Your task to perform on an android device: Open settings on Google Maps Image 0: 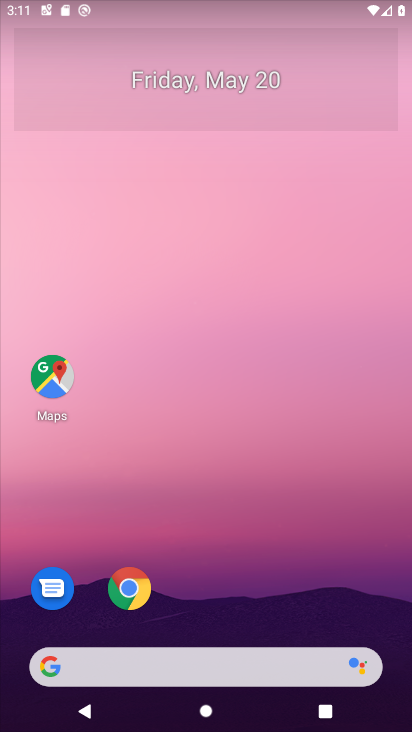
Step 0: click (59, 370)
Your task to perform on an android device: Open settings on Google Maps Image 1: 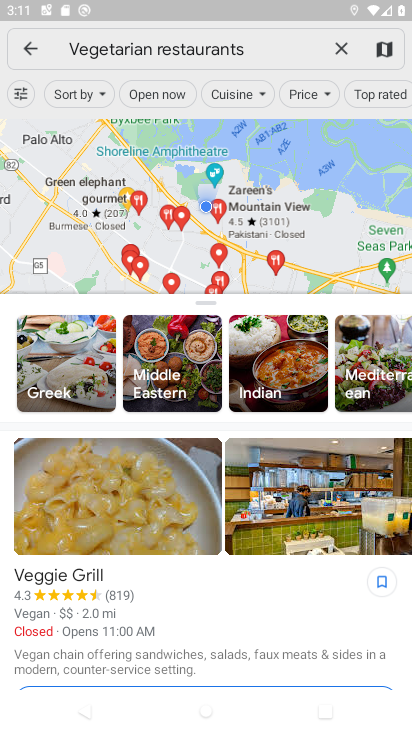
Step 1: click (26, 40)
Your task to perform on an android device: Open settings on Google Maps Image 2: 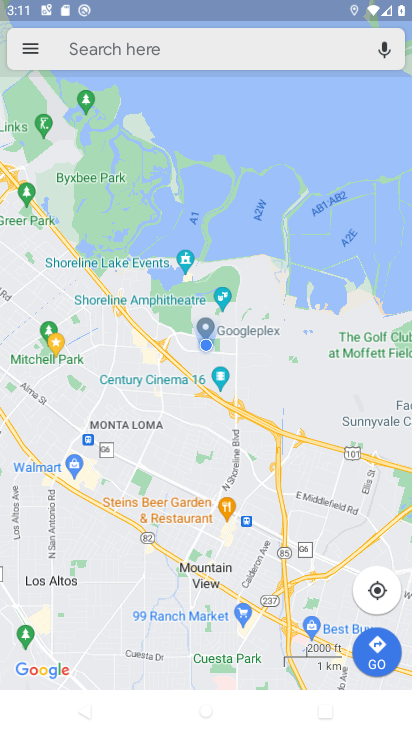
Step 2: click (30, 46)
Your task to perform on an android device: Open settings on Google Maps Image 3: 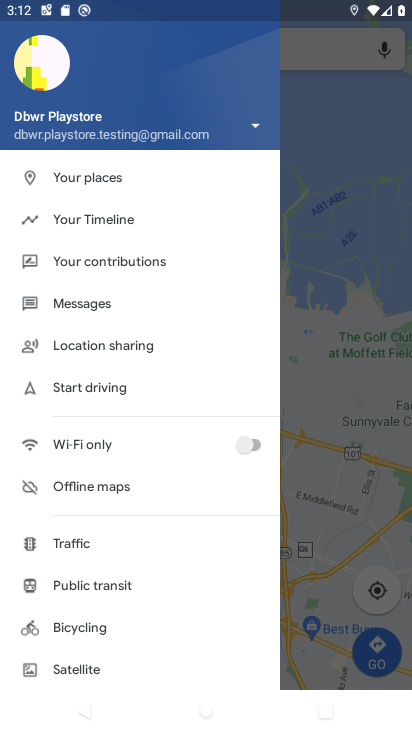
Step 3: drag from (93, 618) to (203, 264)
Your task to perform on an android device: Open settings on Google Maps Image 4: 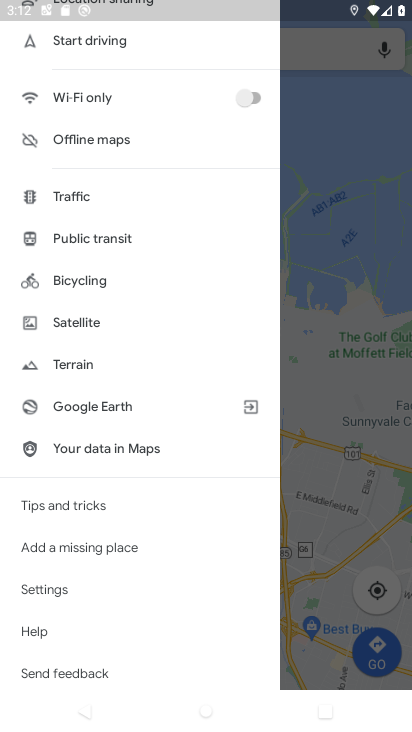
Step 4: click (46, 591)
Your task to perform on an android device: Open settings on Google Maps Image 5: 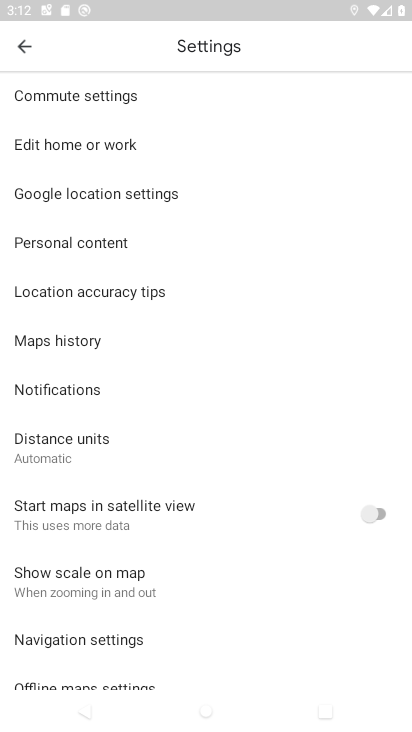
Step 5: task complete